Your task to perform on an android device: remove spam from my inbox in the gmail app Image 0: 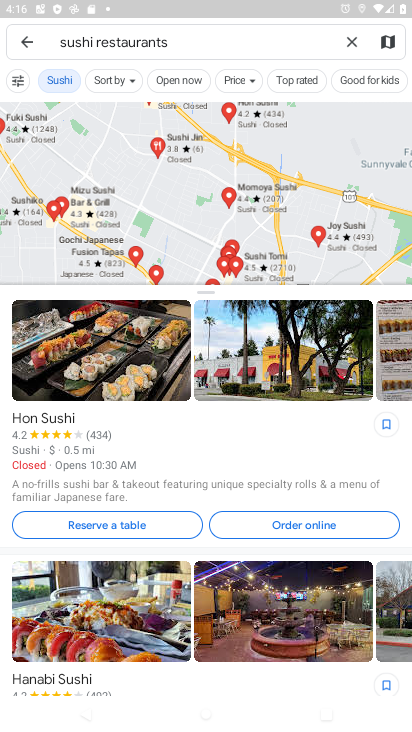
Step 0: press home button
Your task to perform on an android device: remove spam from my inbox in the gmail app Image 1: 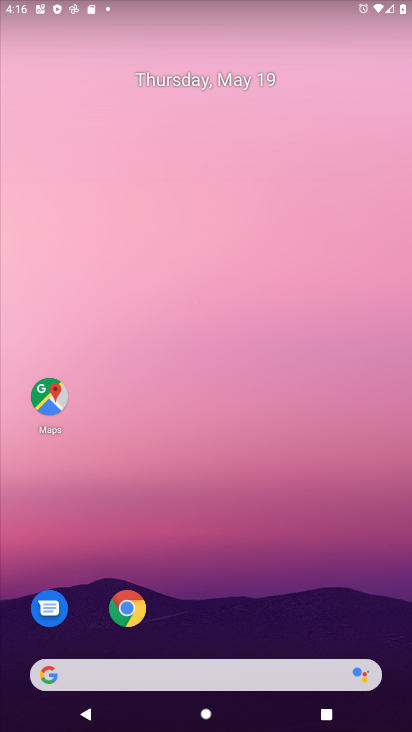
Step 1: drag from (265, 618) to (255, 99)
Your task to perform on an android device: remove spam from my inbox in the gmail app Image 2: 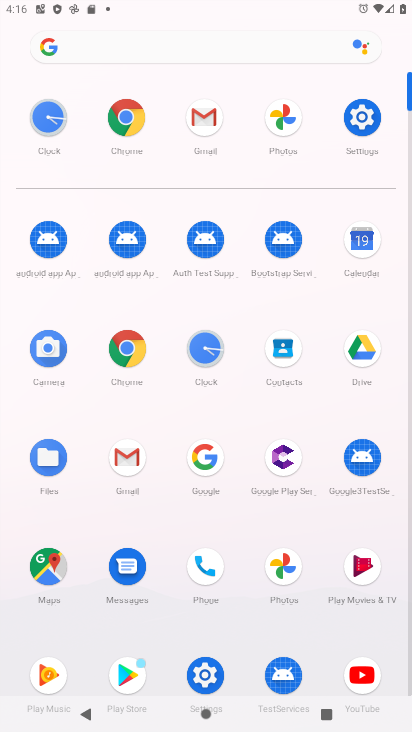
Step 2: click (135, 126)
Your task to perform on an android device: remove spam from my inbox in the gmail app Image 3: 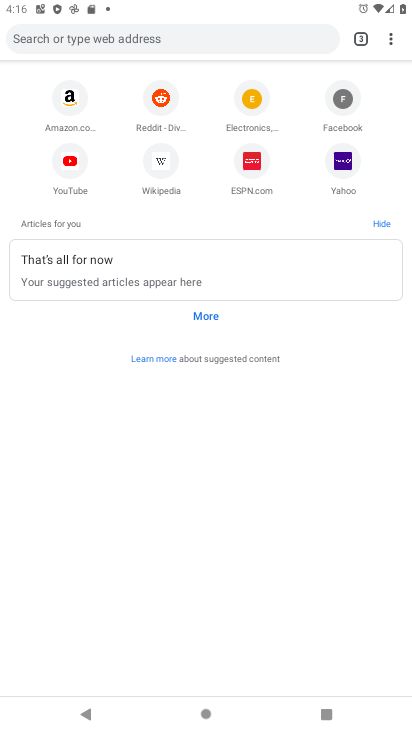
Step 3: press home button
Your task to perform on an android device: remove spam from my inbox in the gmail app Image 4: 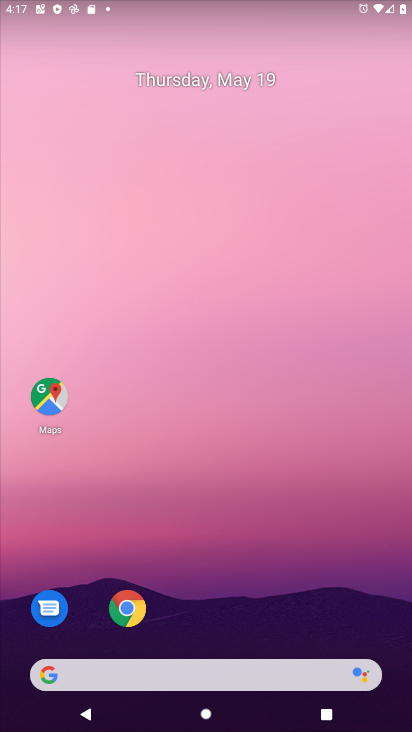
Step 4: drag from (229, 585) to (169, 12)
Your task to perform on an android device: remove spam from my inbox in the gmail app Image 5: 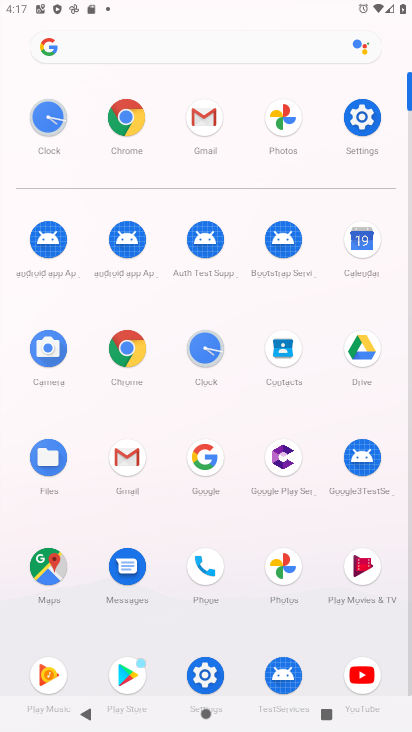
Step 5: click (216, 120)
Your task to perform on an android device: remove spam from my inbox in the gmail app Image 6: 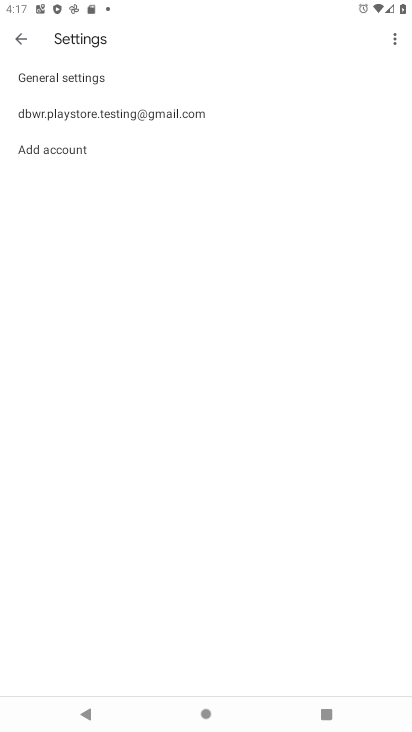
Step 6: click (15, 45)
Your task to perform on an android device: remove spam from my inbox in the gmail app Image 7: 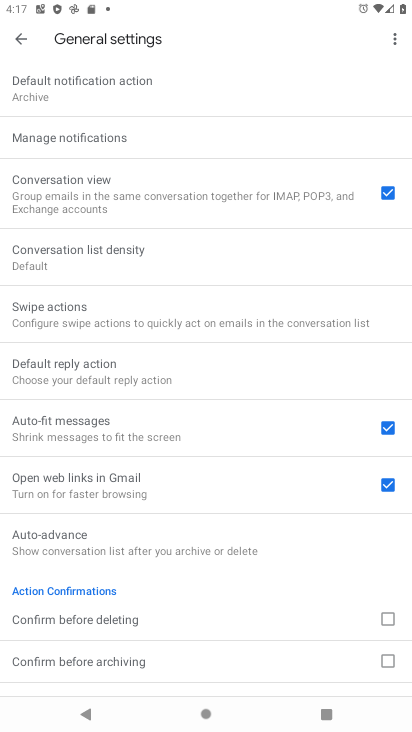
Step 7: click (24, 49)
Your task to perform on an android device: remove spam from my inbox in the gmail app Image 8: 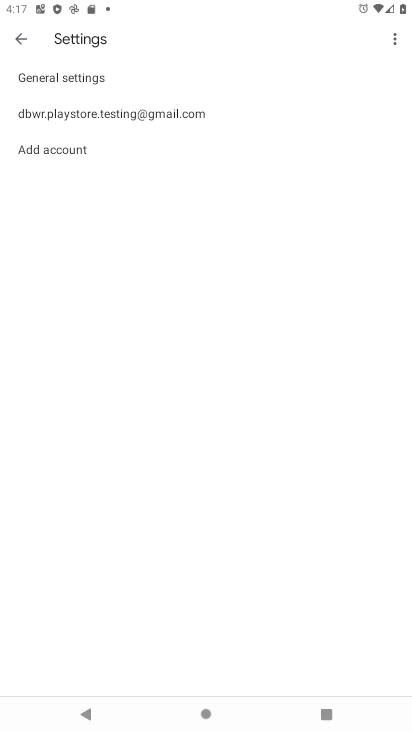
Step 8: click (25, 52)
Your task to perform on an android device: remove spam from my inbox in the gmail app Image 9: 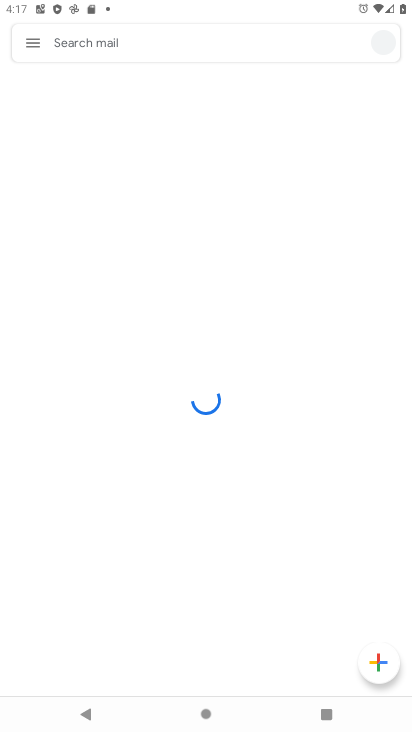
Step 9: click (25, 52)
Your task to perform on an android device: remove spam from my inbox in the gmail app Image 10: 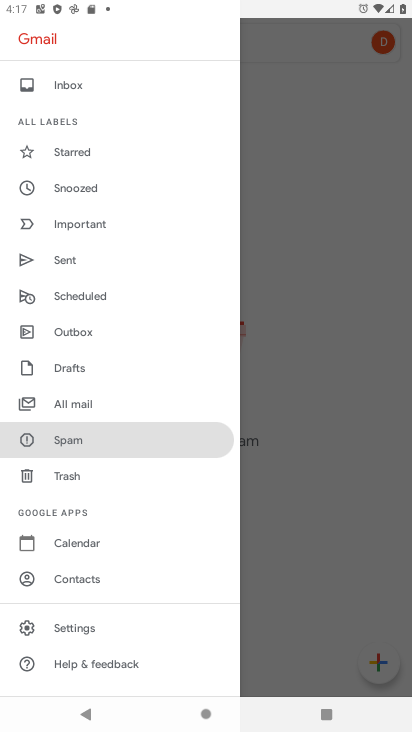
Step 10: click (69, 440)
Your task to perform on an android device: remove spam from my inbox in the gmail app Image 11: 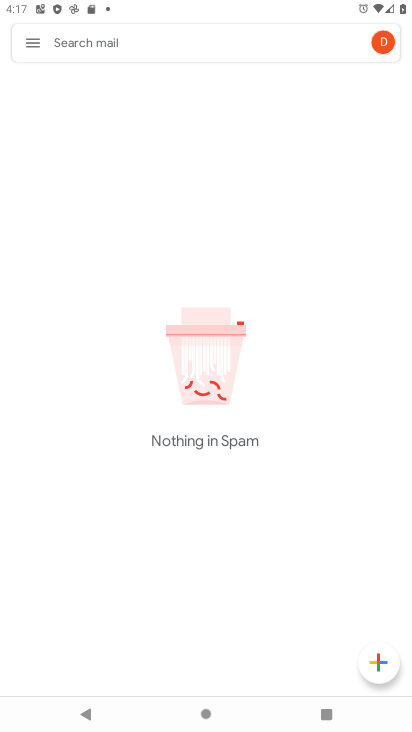
Step 11: task complete